Your task to perform on an android device: delete the emails in spam in the gmail app Image 0: 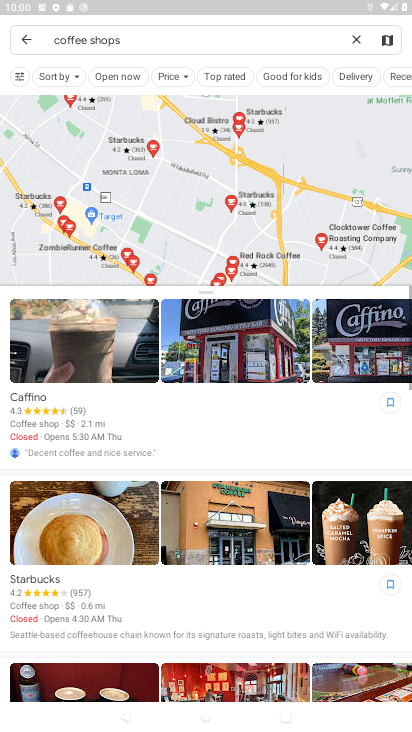
Step 0: press home button
Your task to perform on an android device: delete the emails in spam in the gmail app Image 1: 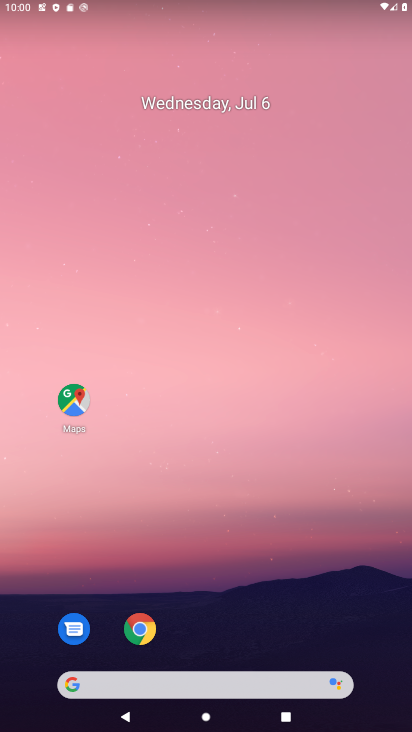
Step 1: drag from (210, 591) to (283, 157)
Your task to perform on an android device: delete the emails in spam in the gmail app Image 2: 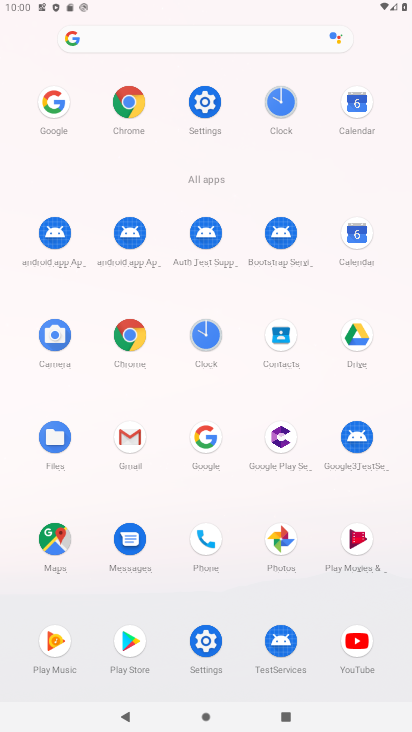
Step 2: click (131, 433)
Your task to perform on an android device: delete the emails in spam in the gmail app Image 3: 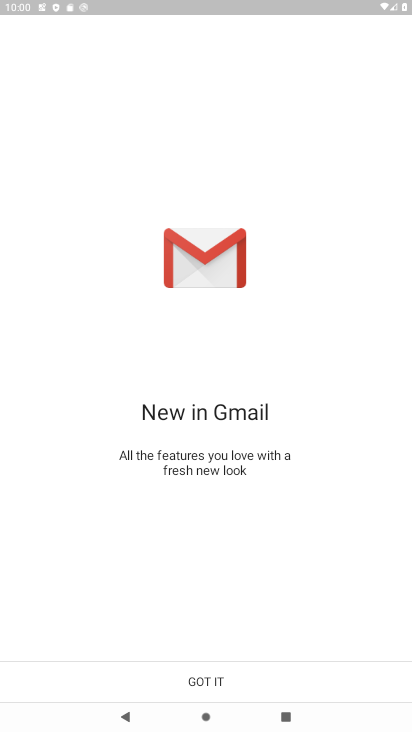
Step 3: click (189, 669)
Your task to perform on an android device: delete the emails in spam in the gmail app Image 4: 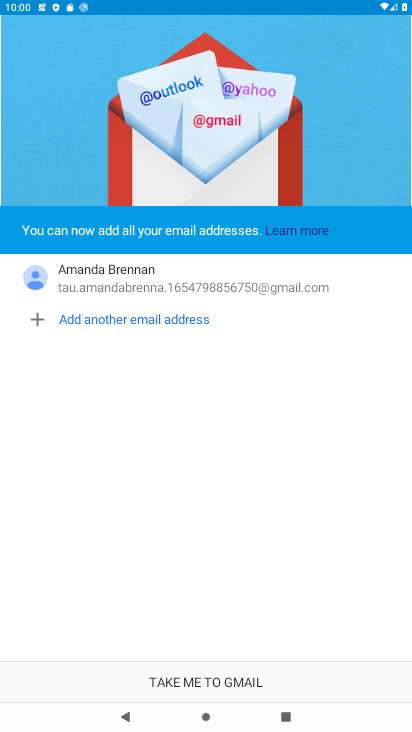
Step 4: click (203, 678)
Your task to perform on an android device: delete the emails in spam in the gmail app Image 5: 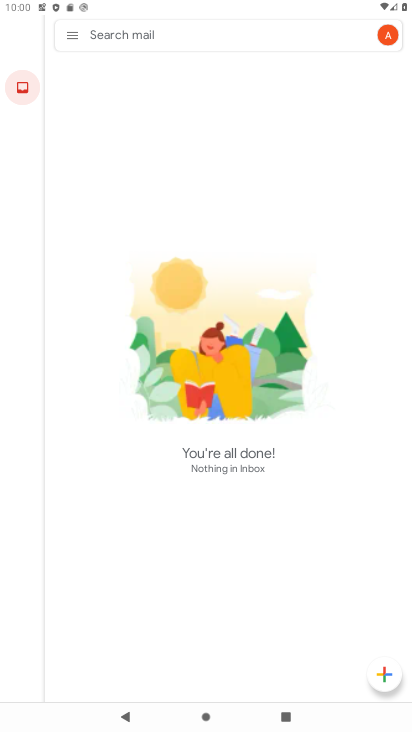
Step 5: click (66, 36)
Your task to perform on an android device: delete the emails in spam in the gmail app Image 6: 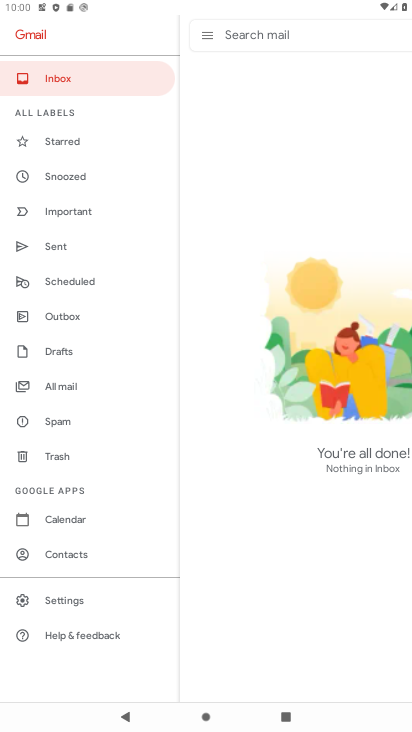
Step 6: click (60, 384)
Your task to perform on an android device: delete the emails in spam in the gmail app Image 7: 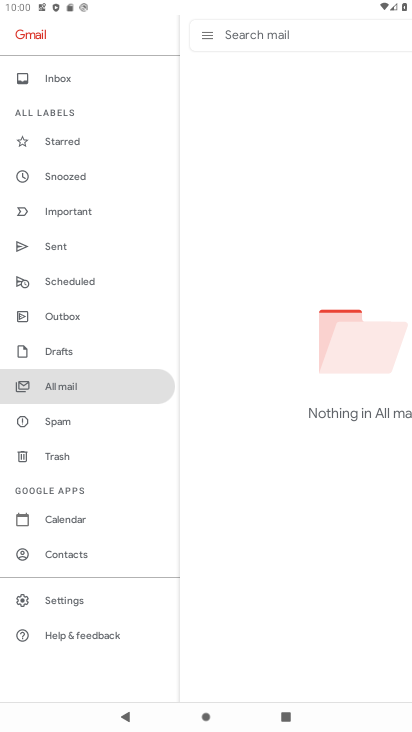
Step 7: task complete